Your task to perform on an android device: toggle location history Image 0: 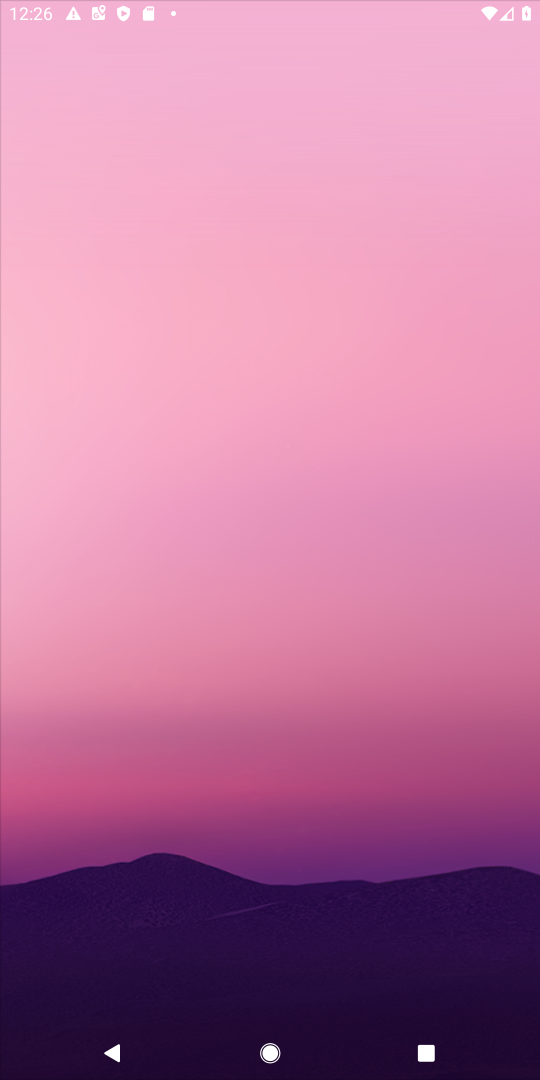
Step 0: click (295, 527)
Your task to perform on an android device: toggle location history Image 1: 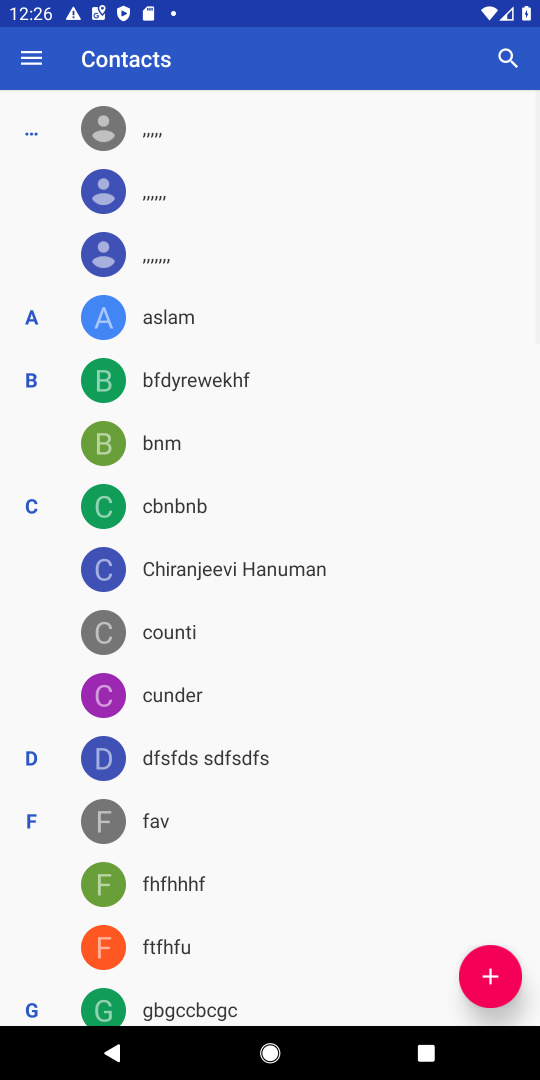
Step 1: press back button
Your task to perform on an android device: toggle location history Image 2: 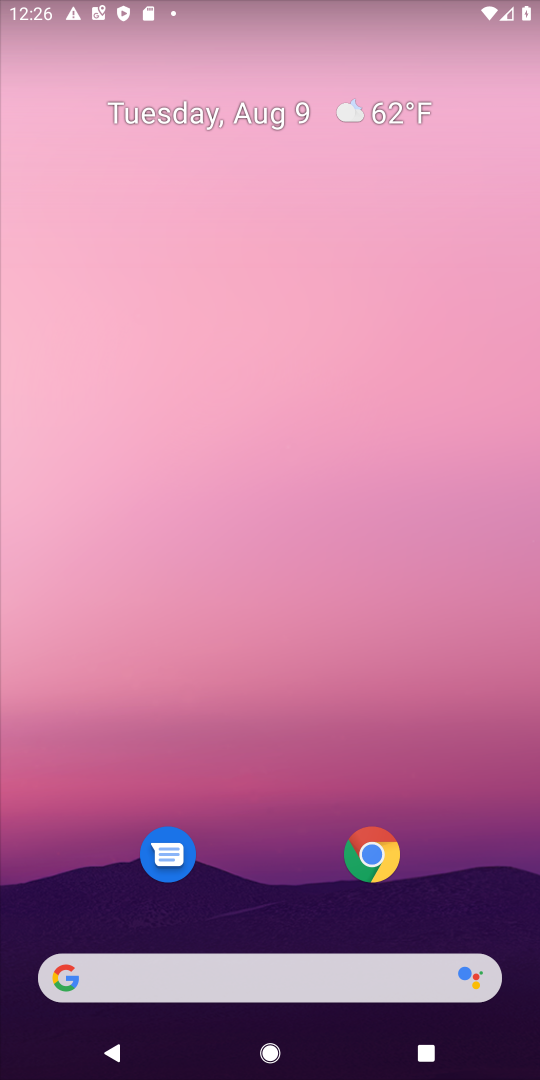
Step 2: drag from (244, 841) to (264, 6)
Your task to perform on an android device: toggle location history Image 3: 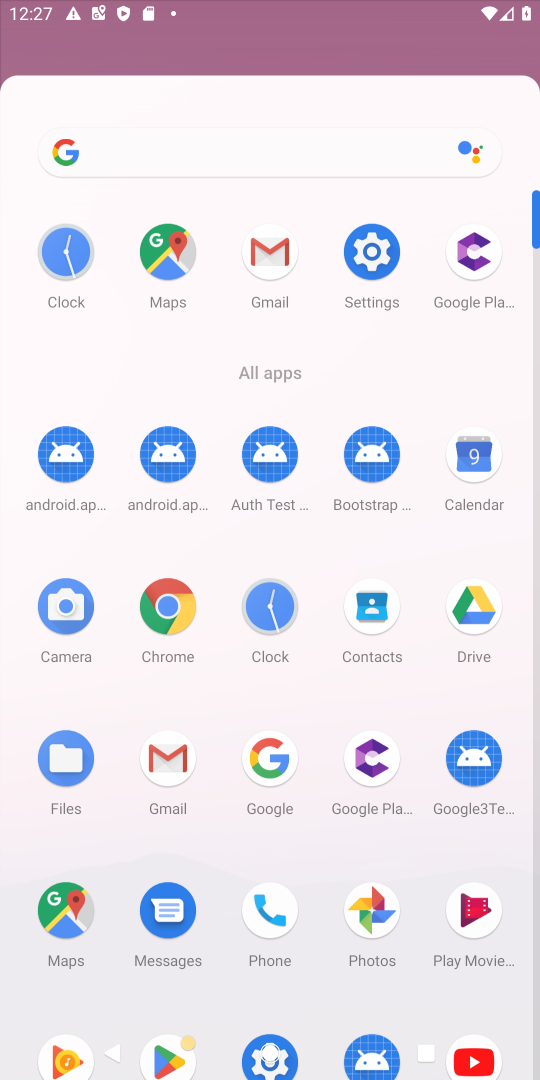
Step 3: click (354, 264)
Your task to perform on an android device: toggle location history Image 4: 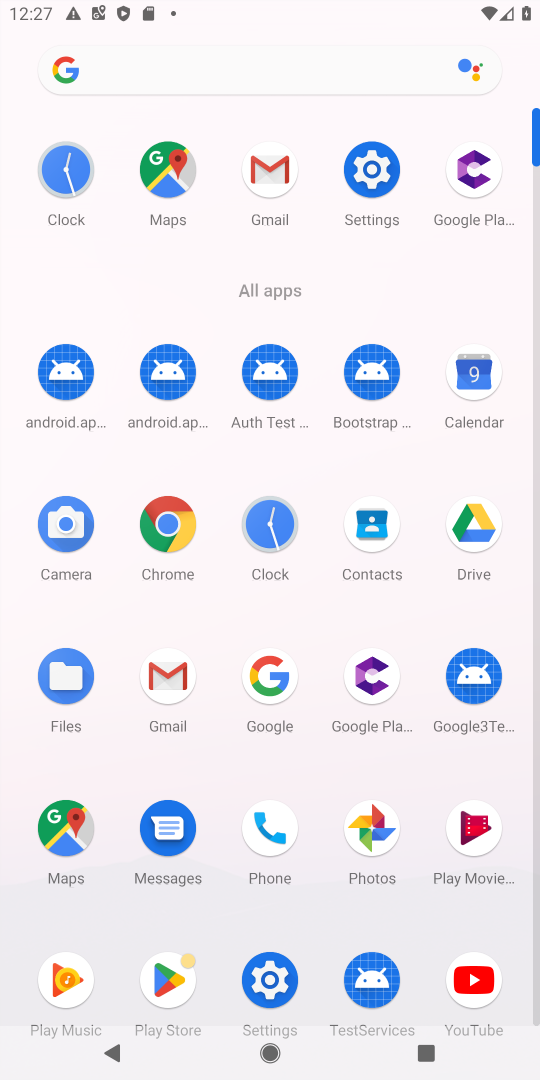
Step 4: click (379, 170)
Your task to perform on an android device: toggle location history Image 5: 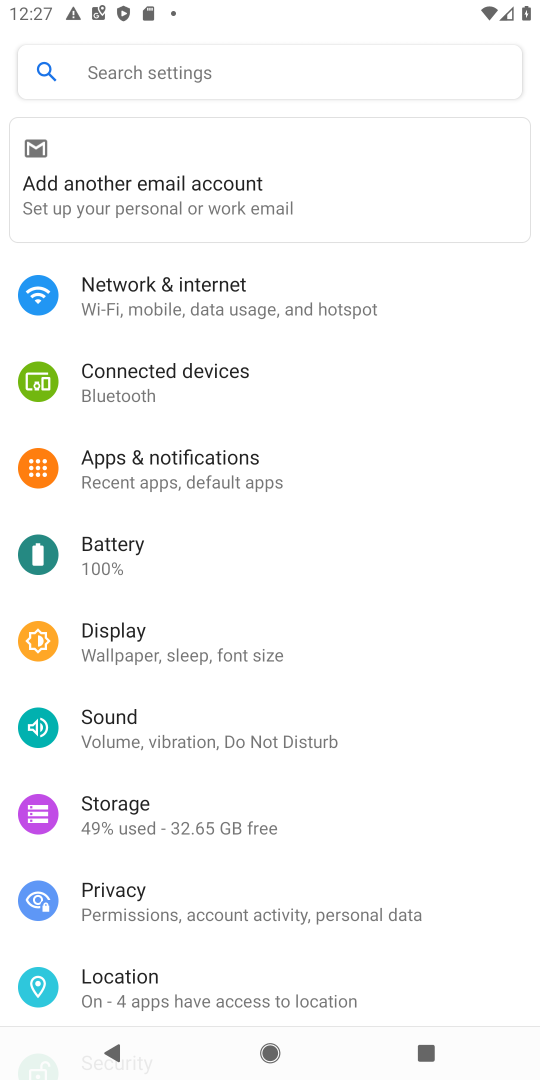
Step 5: click (174, 983)
Your task to perform on an android device: toggle location history Image 6: 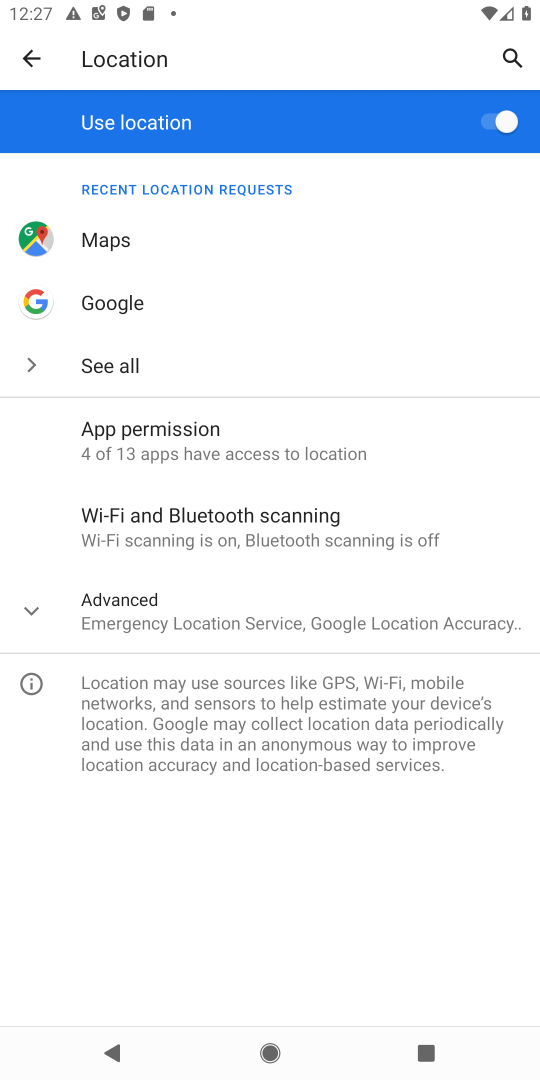
Step 6: click (265, 616)
Your task to perform on an android device: toggle location history Image 7: 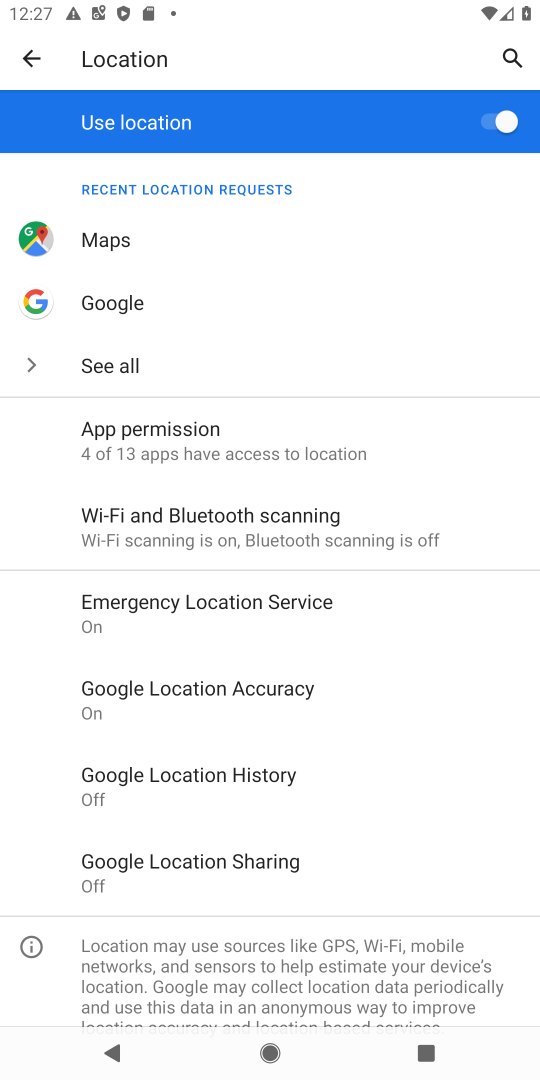
Step 7: click (272, 788)
Your task to perform on an android device: toggle location history Image 8: 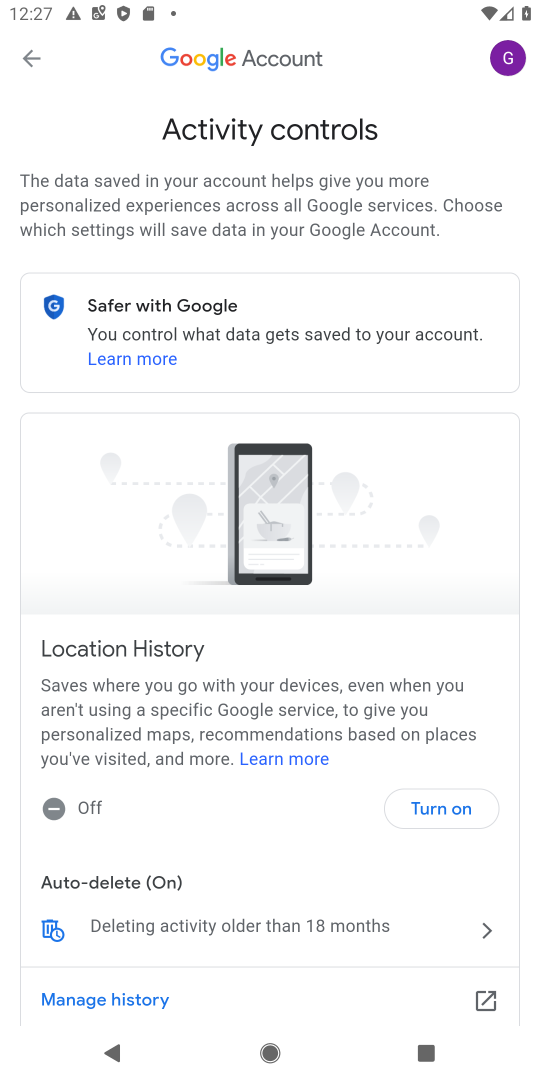
Step 8: click (463, 806)
Your task to perform on an android device: toggle location history Image 9: 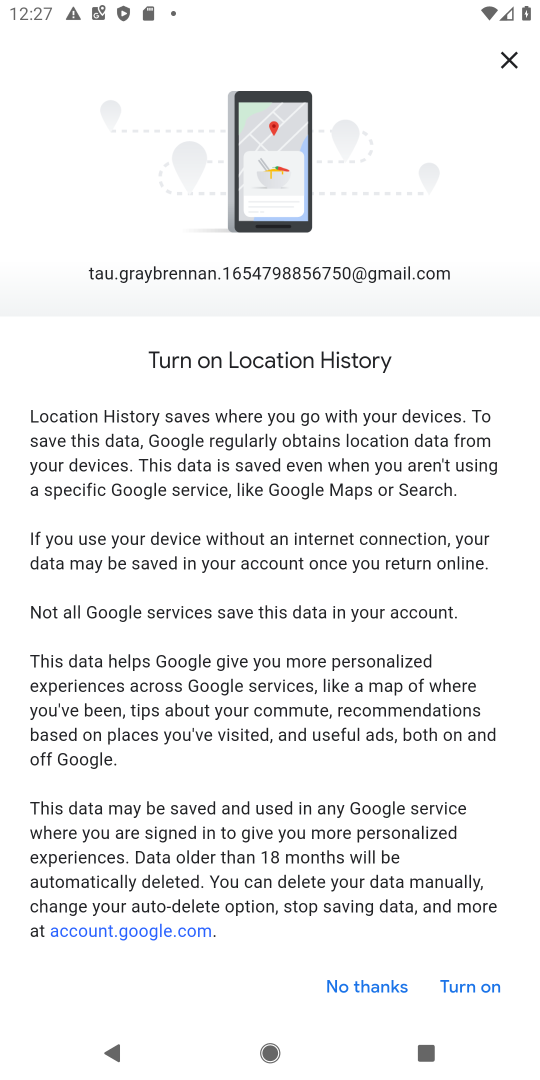
Step 9: click (484, 999)
Your task to perform on an android device: toggle location history Image 10: 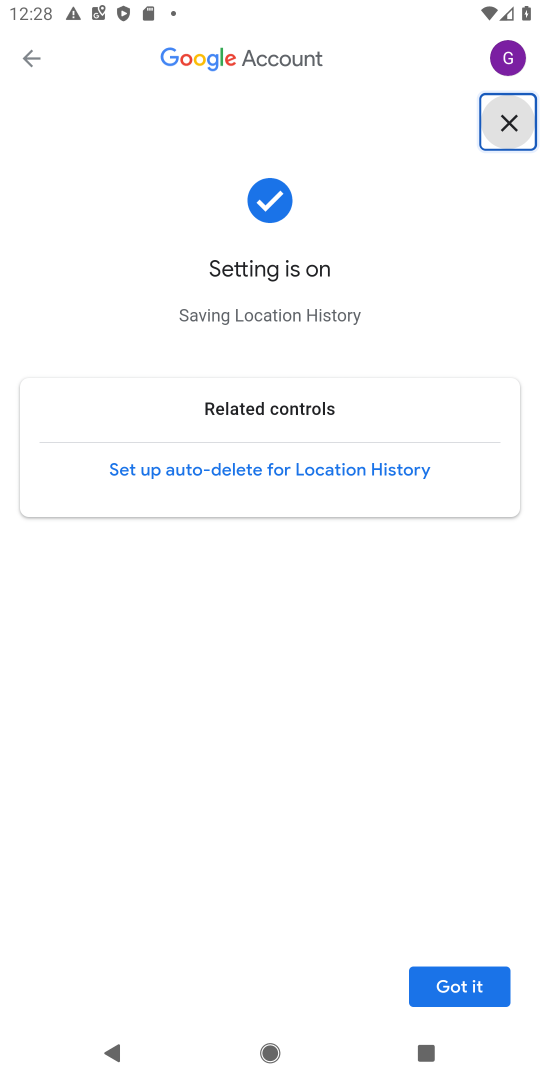
Step 10: task complete